Your task to perform on an android device: Open privacy settings Image 0: 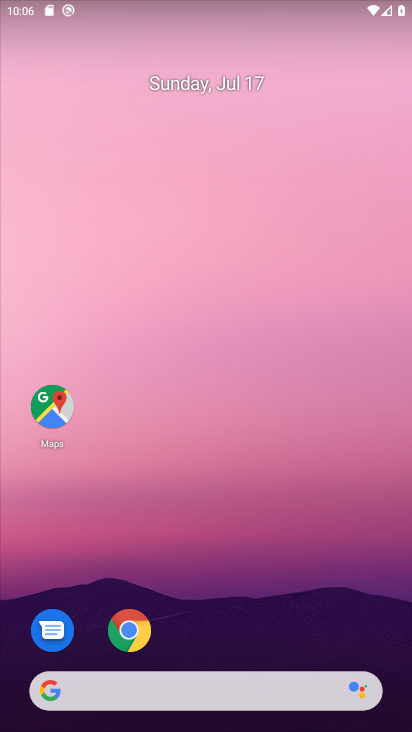
Step 0: drag from (246, 650) to (360, 0)
Your task to perform on an android device: Open privacy settings Image 1: 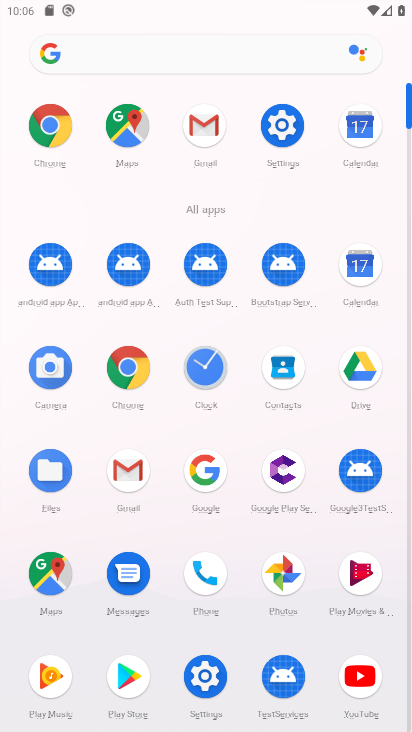
Step 1: click (207, 688)
Your task to perform on an android device: Open privacy settings Image 2: 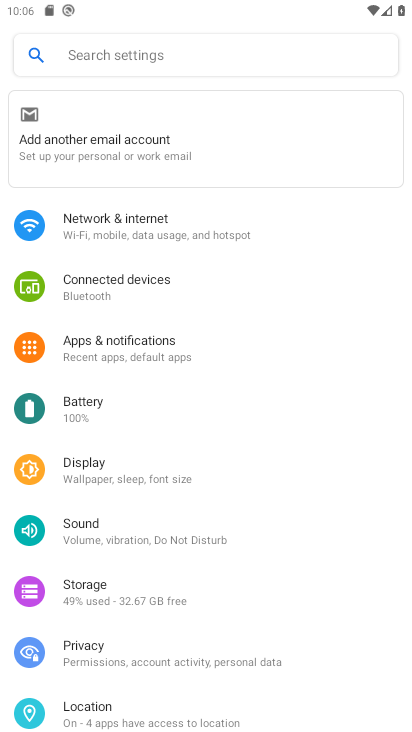
Step 2: click (125, 656)
Your task to perform on an android device: Open privacy settings Image 3: 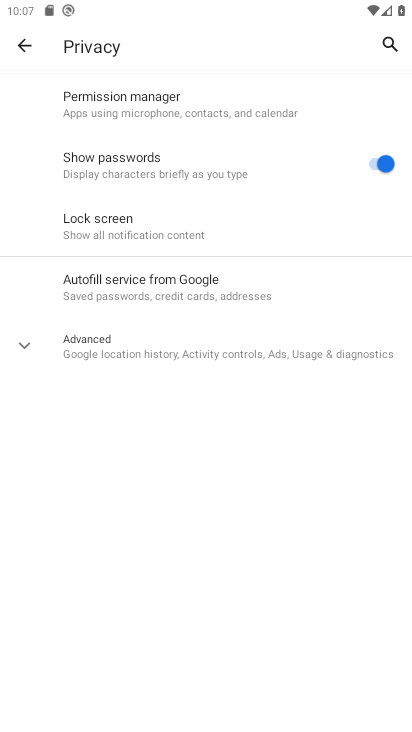
Step 3: task complete